Your task to perform on an android device: What's on my calendar today? Image 0: 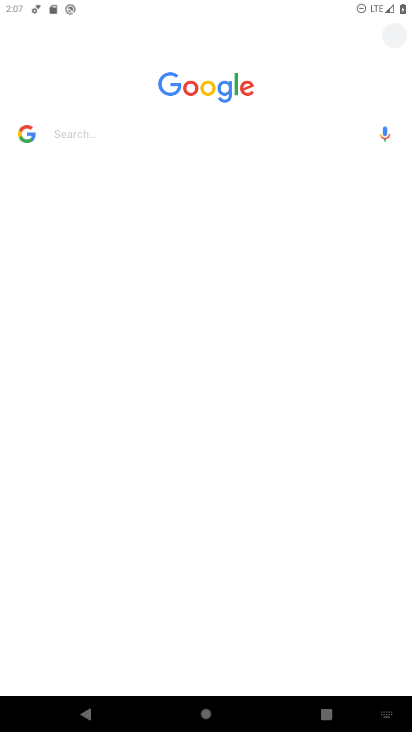
Step 0: press home button
Your task to perform on an android device: What's on my calendar today? Image 1: 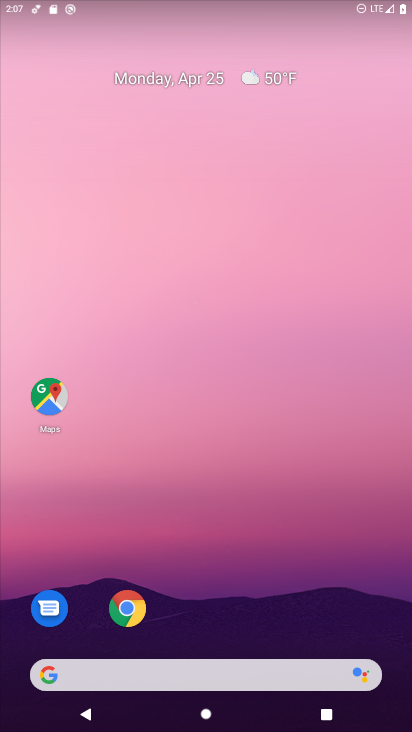
Step 1: drag from (358, 636) to (255, 73)
Your task to perform on an android device: What's on my calendar today? Image 2: 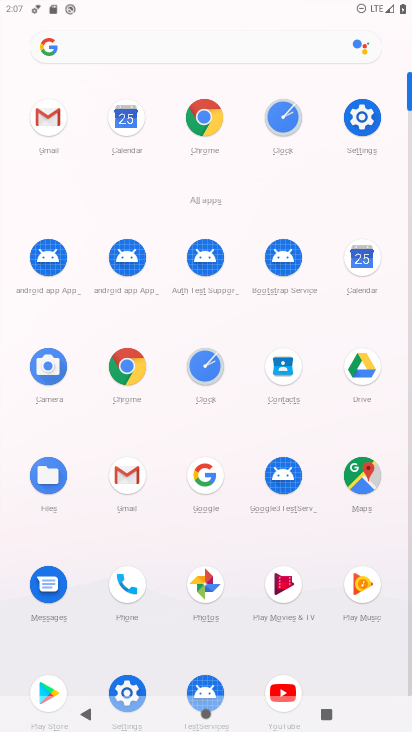
Step 2: click (357, 251)
Your task to perform on an android device: What's on my calendar today? Image 3: 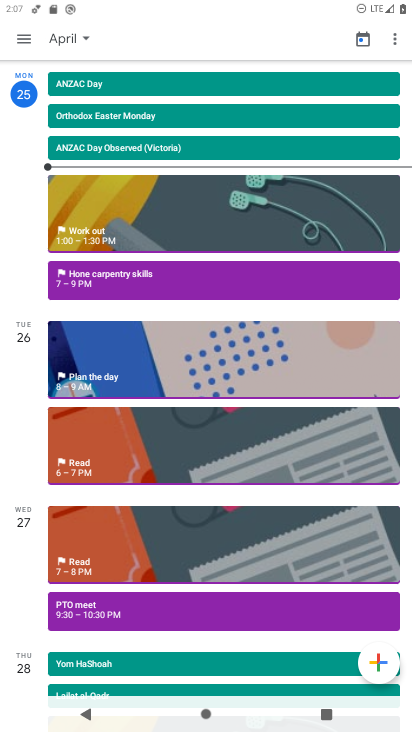
Step 3: click (16, 37)
Your task to perform on an android device: What's on my calendar today? Image 4: 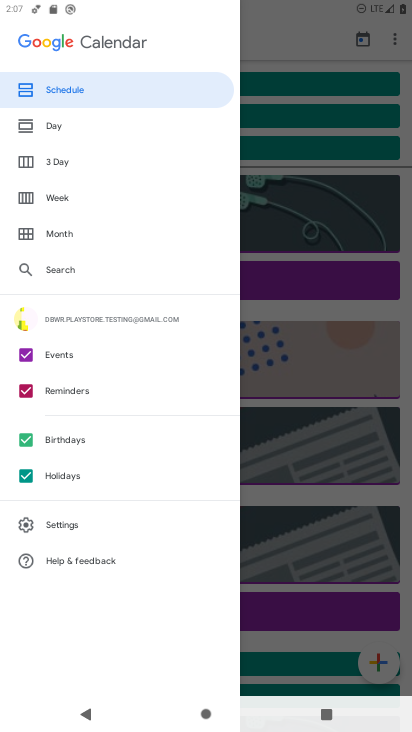
Step 4: click (101, 91)
Your task to perform on an android device: What's on my calendar today? Image 5: 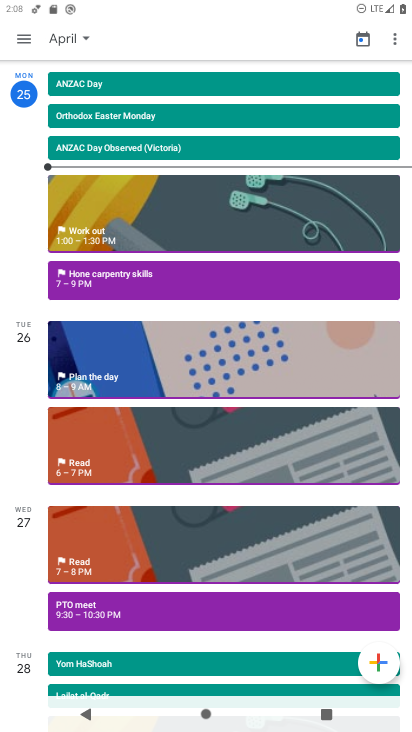
Step 5: click (96, 92)
Your task to perform on an android device: What's on my calendar today? Image 6: 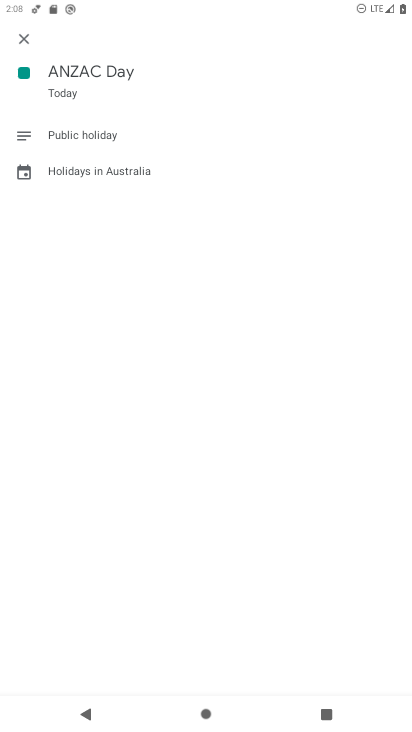
Step 6: task complete